Your task to perform on an android device: toggle location history Image 0: 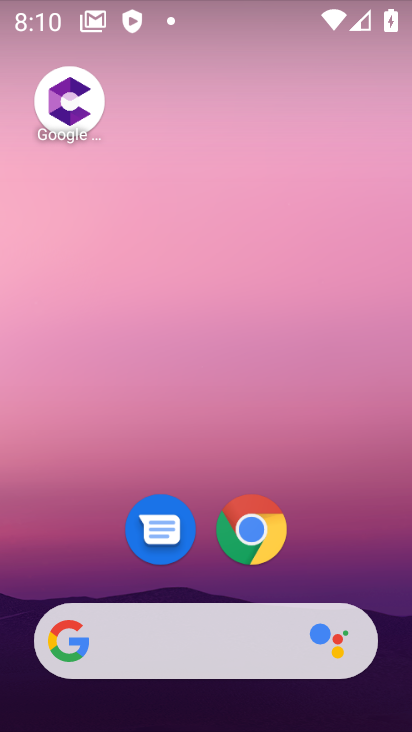
Step 0: drag from (349, 516) to (372, 200)
Your task to perform on an android device: toggle location history Image 1: 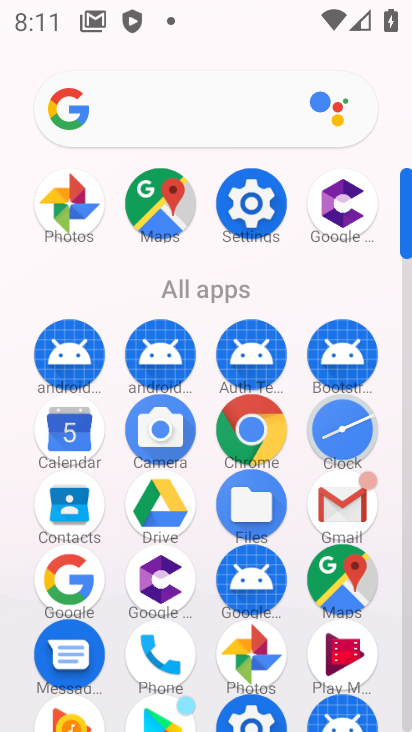
Step 1: click (327, 570)
Your task to perform on an android device: toggle location history Image 2: 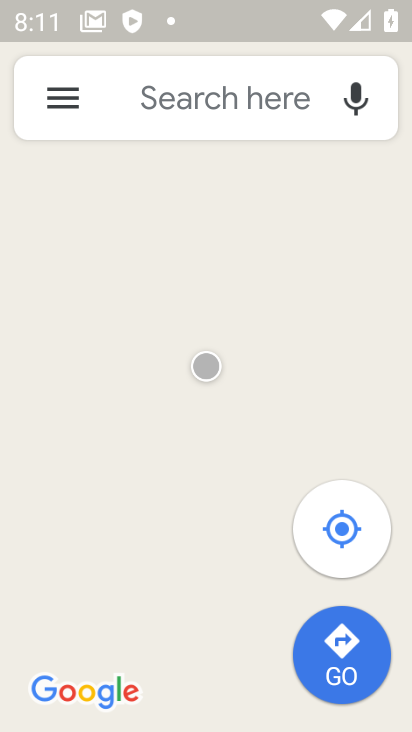
Step 2: click (50, 103)
Your task to perform on an android device: toggle location history Image 3: 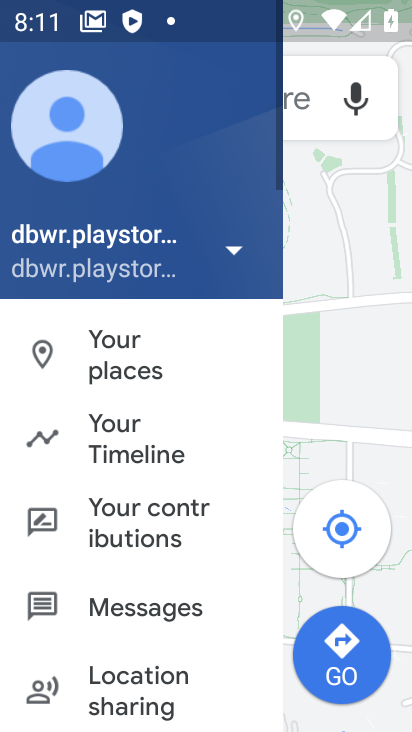
Step 3: click (61, 99)
Your task to perform on an android device: toggle location history Image 4: 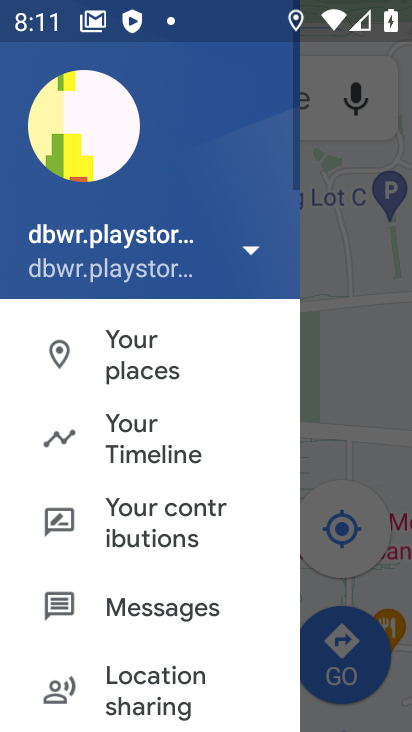
Step 4: click (138, 418)
Your task to perform on an android device: toggle location history Image 5: 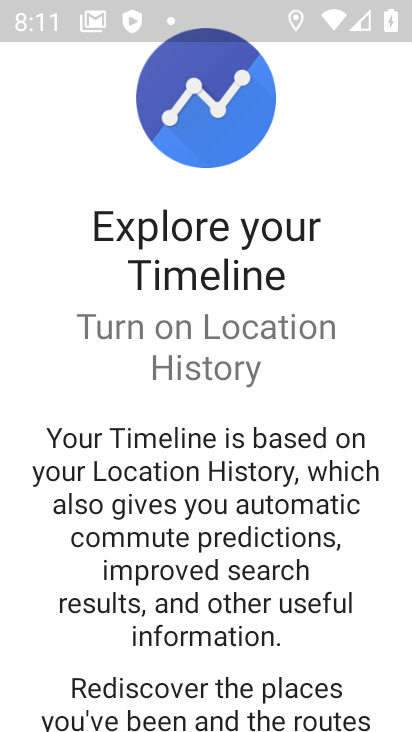
Step 5: drag from (104, 409) to (194, 483)
Your task to perform on an android device: toggle location history Image 6: 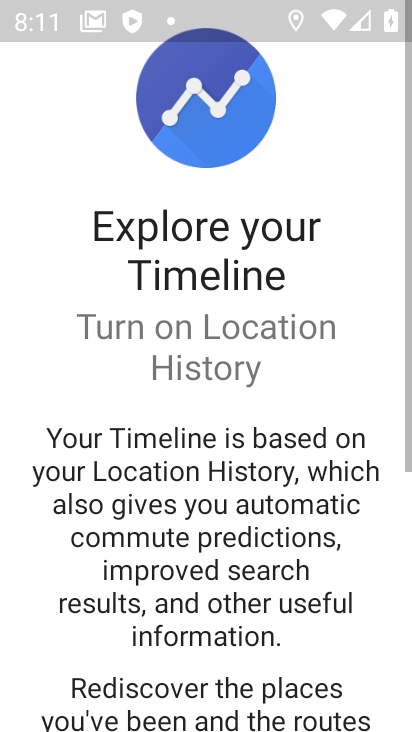
Step 6: click (207, 543)
Your task to perform on an android device: toggle location history Image 7: 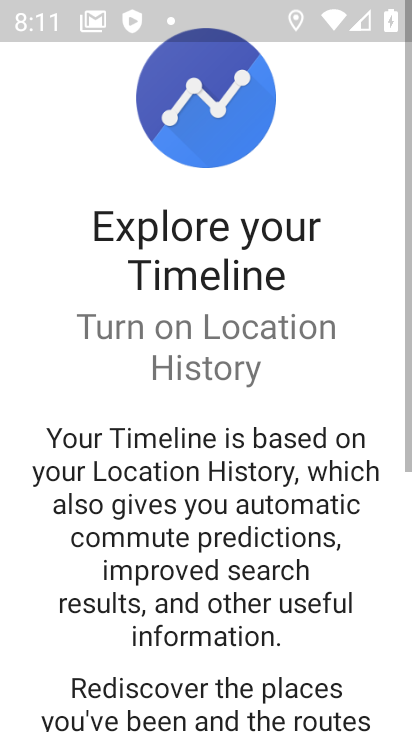
Step 7: drag from (243, 570) to (243, 140)
Your task to perform on an android device: toggle location history Image 8: 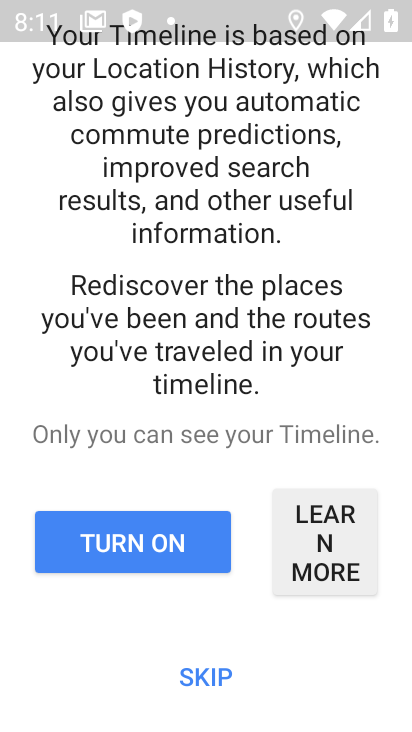
Step 8: click (182, 543)
Your task to perform on an android device: toggle location history Image 9: 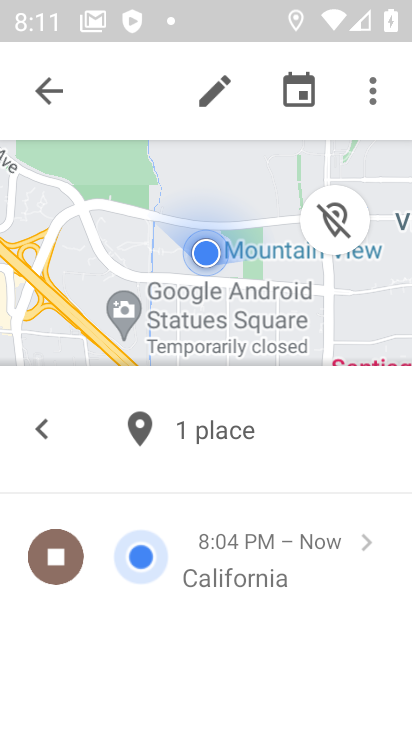
Step 9: click (376, 92)
Your task to perform on an android device: toggle location history Image 10: 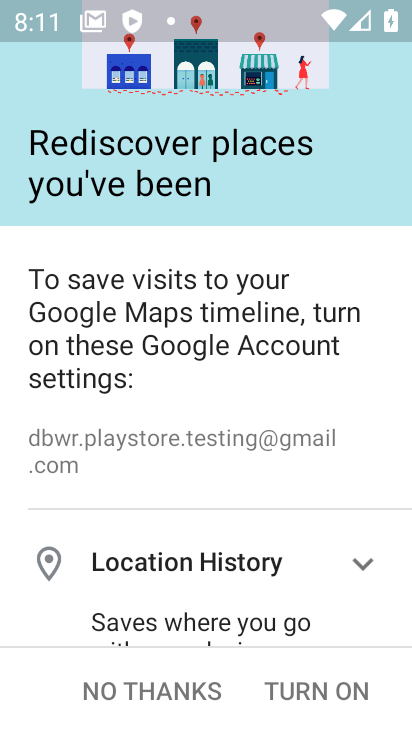
Step 10: drag from (295, 560) to (296, 275)
Your task to perform on an android device: toggle location history Image 11: 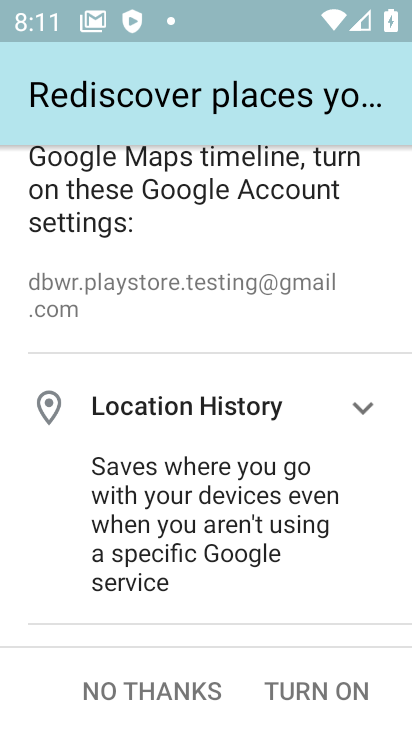
Step 11: drag from (274, 524) to (274, 307)
Your task to perform on an android device: toggle location history Image 12: 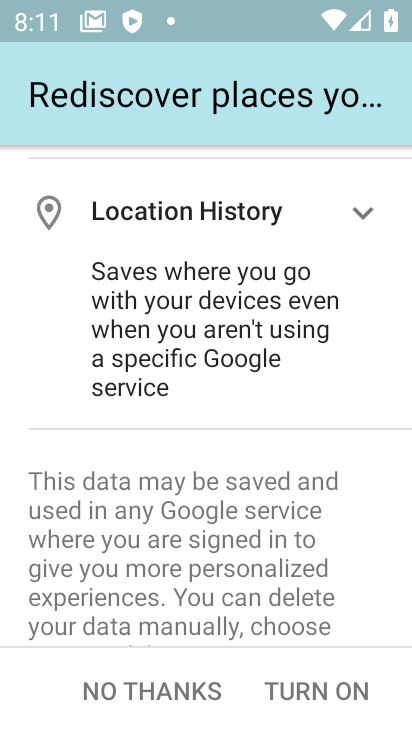
Step 12: drag from (260, 398) to (243, 33)
Your task to perform on an android device: toggle location history Image 13: 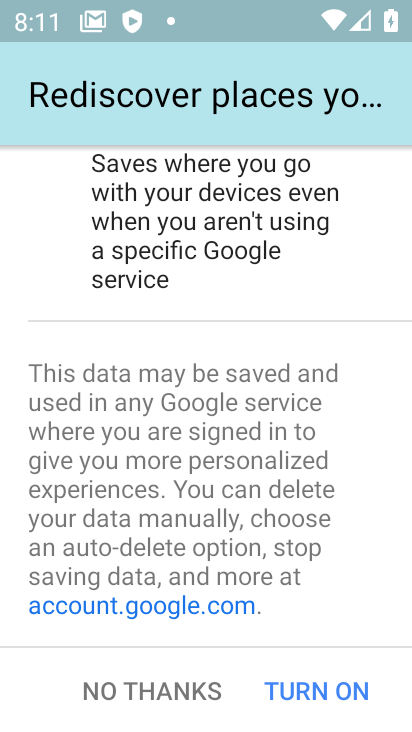
Step 13: drag from (310, 219) to (293, 707)
Your task to perform on an android device: toggle location history Image 14: 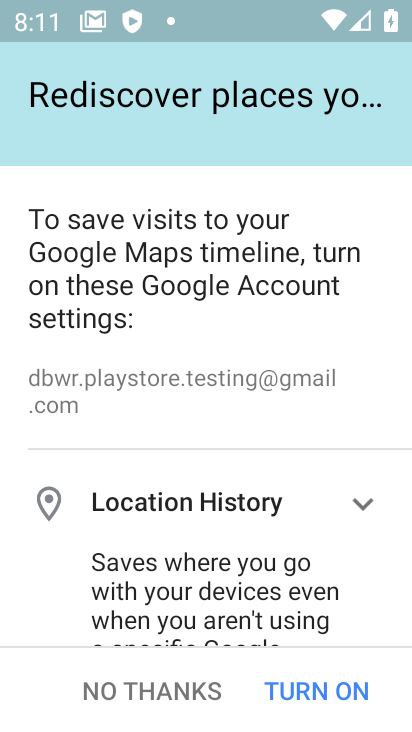
Step 14: click (365, 499)
Your task to perform on an android device: toggle location history Image 15: 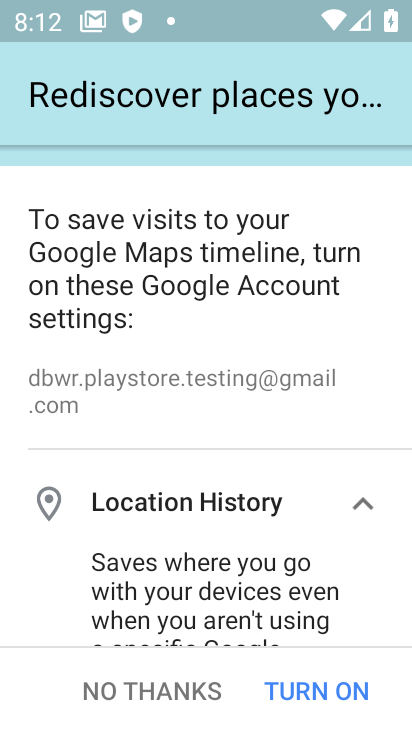
Step 15: drag from (306, 509) to (276, 155)
Your task to perform on an android device: toggle location history Image 16: 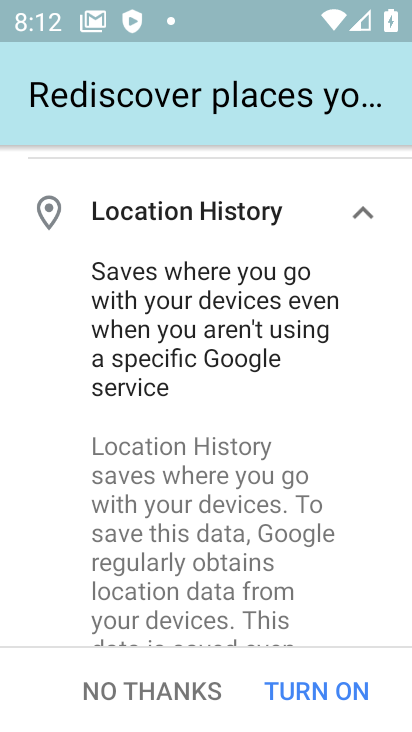
Step 16: click (347, 212)
Your task to perform on an android device: toggle location history Image 17: 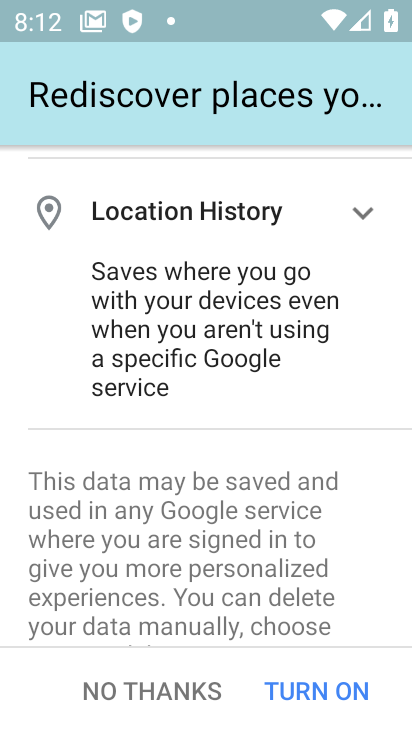
Step 17: click (322, 683)
Your task to perform on an android device: toggle location history Image 18: 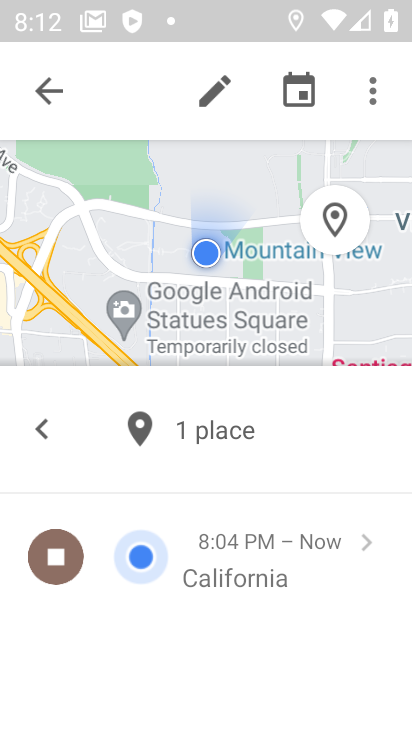
Step 18: task complete